Your task to perform on an android device: Open calendar and show me the fourth week of next month Image 0: 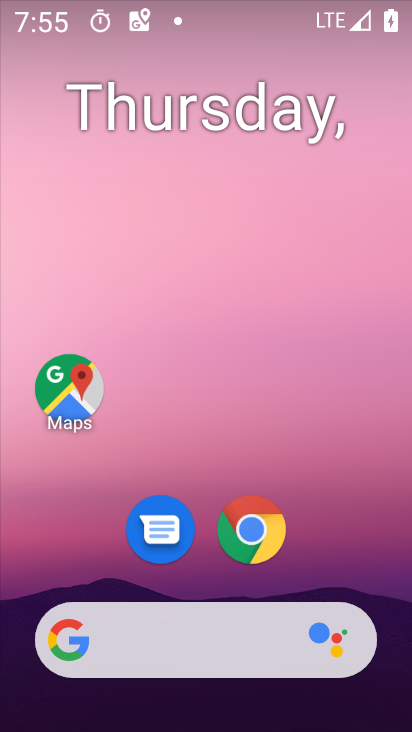
Step 0: drag from (376, 584) to (370, 286)
Your task to perform on an android device: Open calendar and show me the fourth week of next month Image 1: 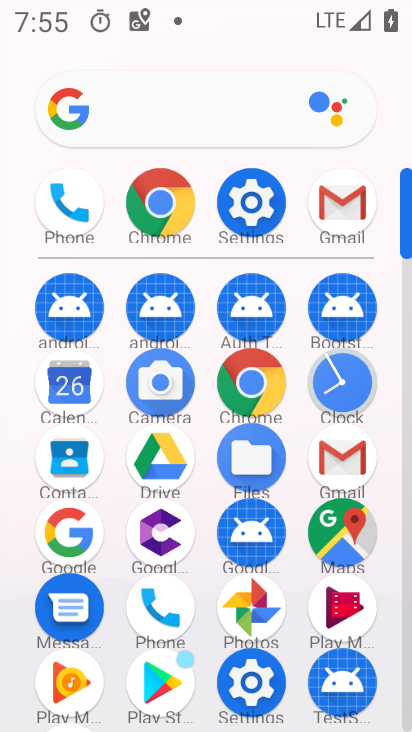
Step 1: click (70, 401)
Your task to perform on an android device: Open calendar and show me the fourth week of next month Image 2: 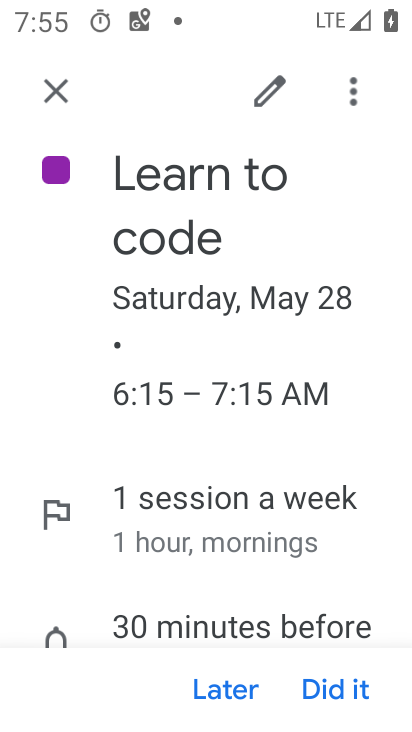
Step 2: click (55, 104)
Your task to perform on an android device: Open calendar and show me the fourth week of next month Image 3: 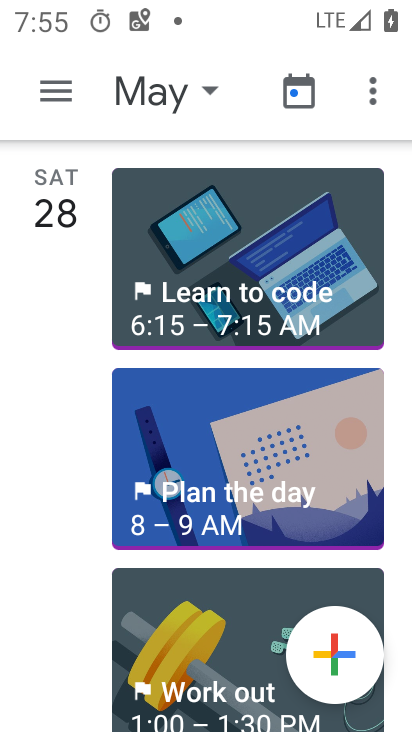
Step 3: click (208, 91)
Your task to perform on an android device: Open calendar and show me the fourth week of next month Image 4: 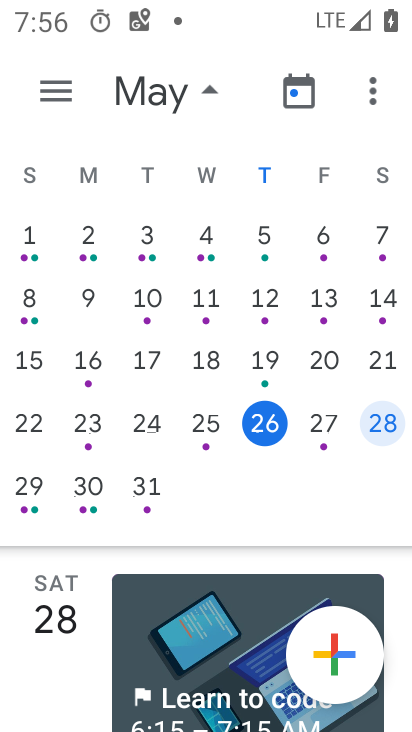
Step 4: drag from (392, 143) to (0, 142)
Your task to perform on an android device: Open calendar and show me the fourth week of next month Image 5: 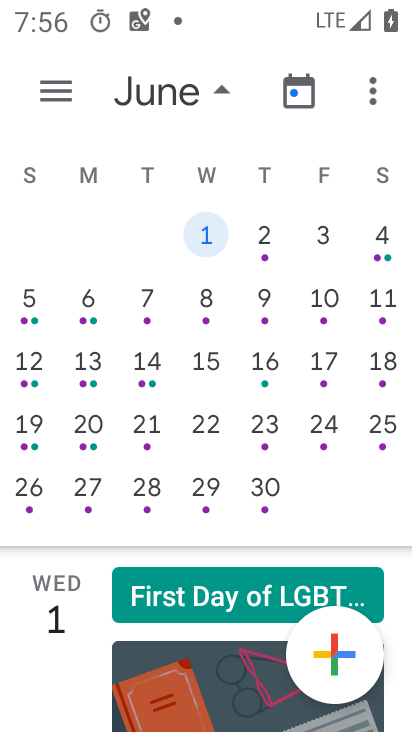
Step 5: click (98, 431)
Your task to perform on an android device: Open calendar and show me the fourth week of next month Image 6: 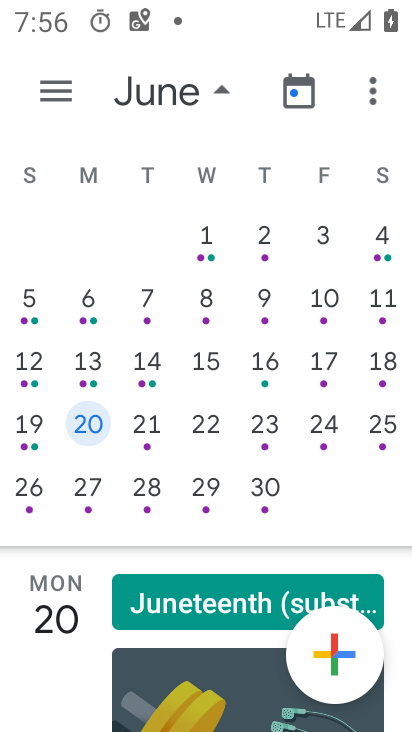
Step 6: task complete